Your task to perform on an android device: toggle translation in the chrome app Image 0: 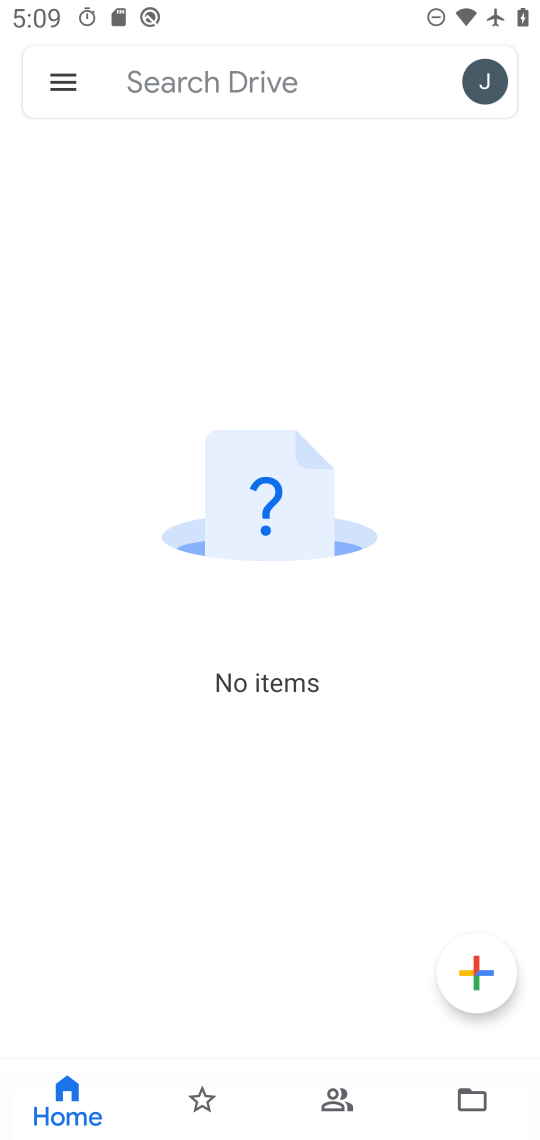
Step 0: press home button
Your task to perform on an android device: toggle translation in the chrome app Image 1: 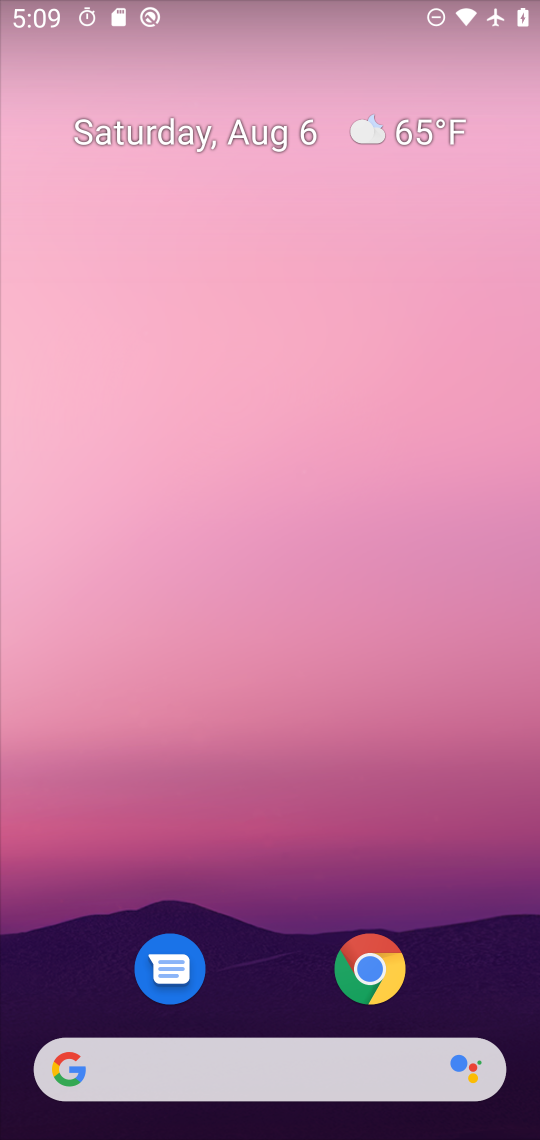
Step 1: drag from (244, 855) to (242, 324)
Your task to perform on an android device: toggle translation in the chrome app Image 2: 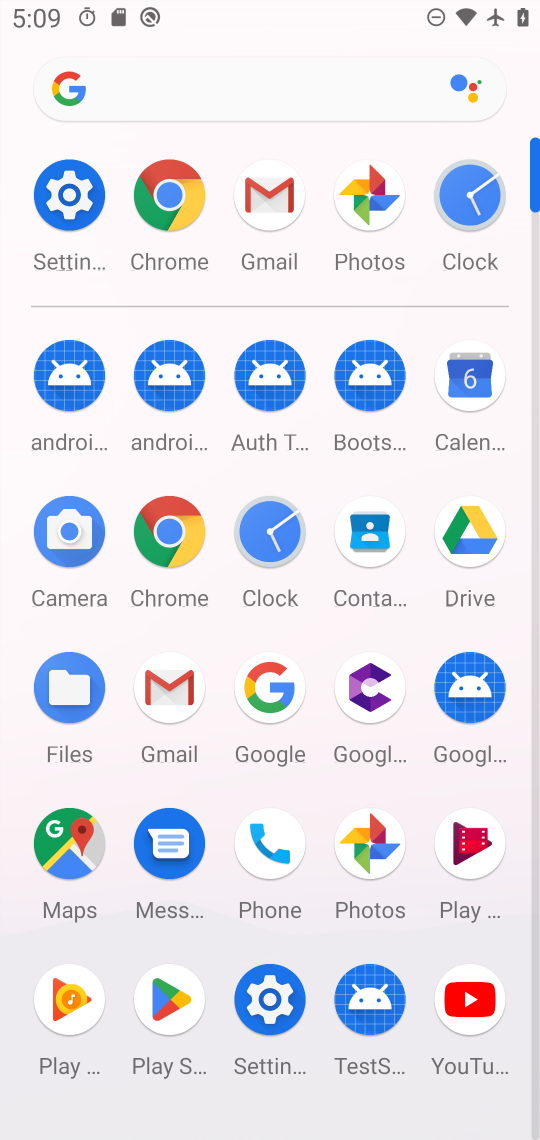
Step 2: click (165, 195)
Your task to perform on an android device: toggle translation in the chrome app Image 3: 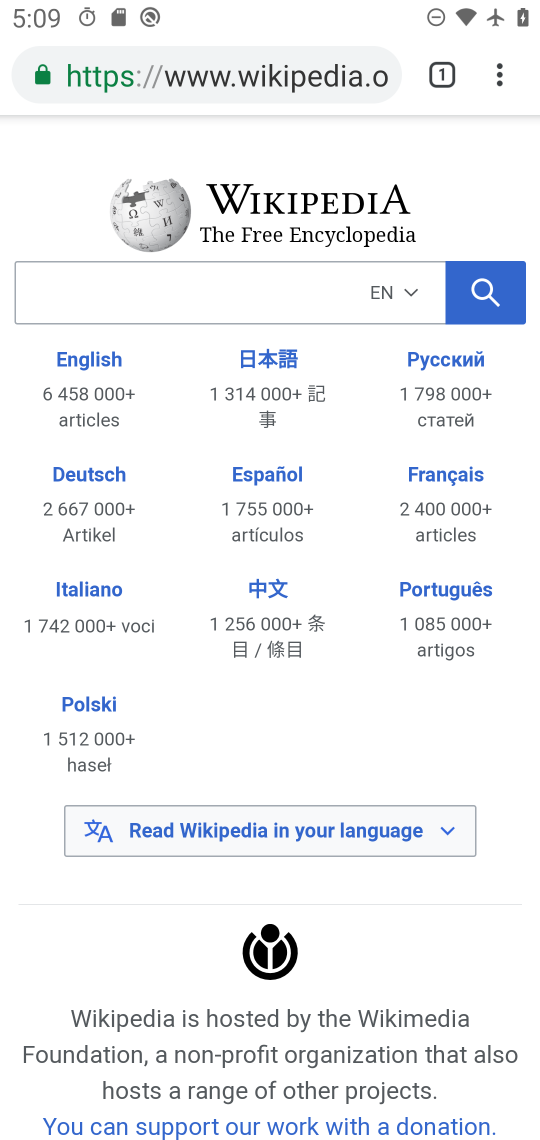
Step 3: drag from (489, 80) to (272, 993)
Your task to perform on an android device: toggle translation in the chrome app Image 4: 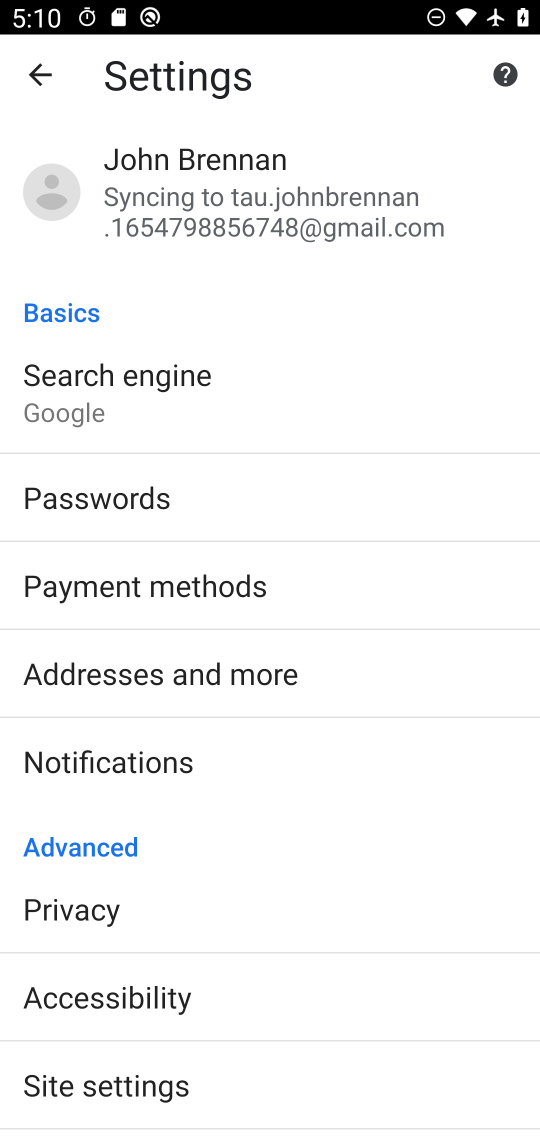
Step 4: drag from (340, 1078) to (323, 529)
Your task to perform on an android device: toggle translation in the chrome app Image 5: 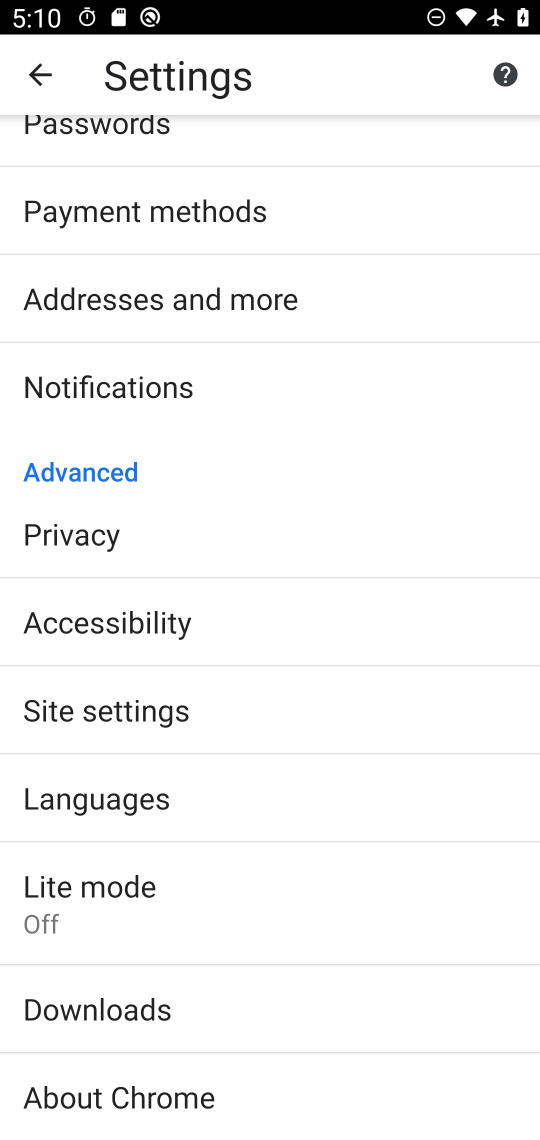
Step 5: click (86, 806)
Your task to perform on an android device: toggle translation in the chrome app Image 6: 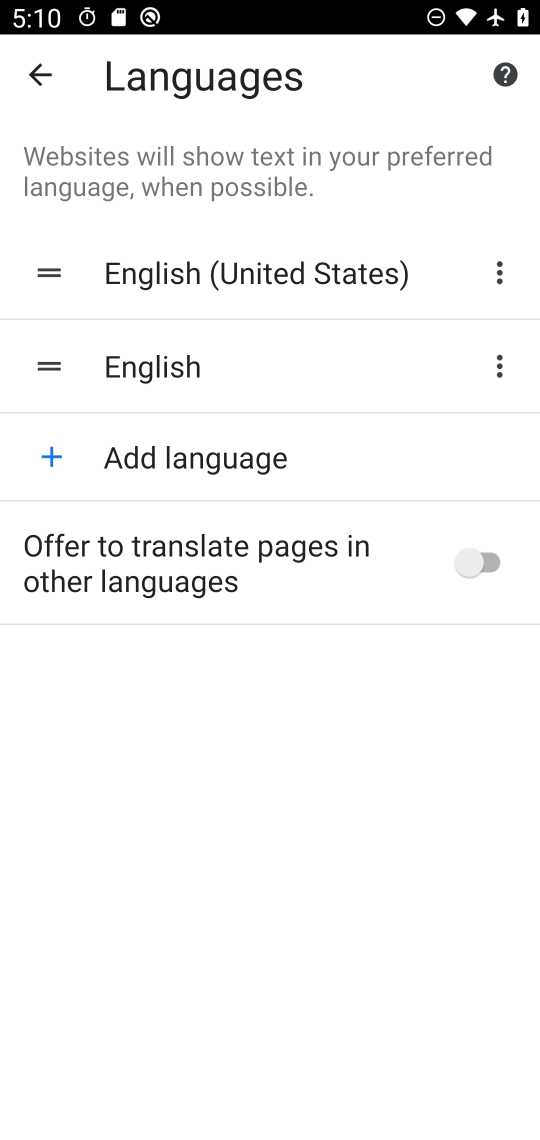
Step 6: click (473, 568)
Your task to perform on an android device: toggle translation in the chrome app Image 7: 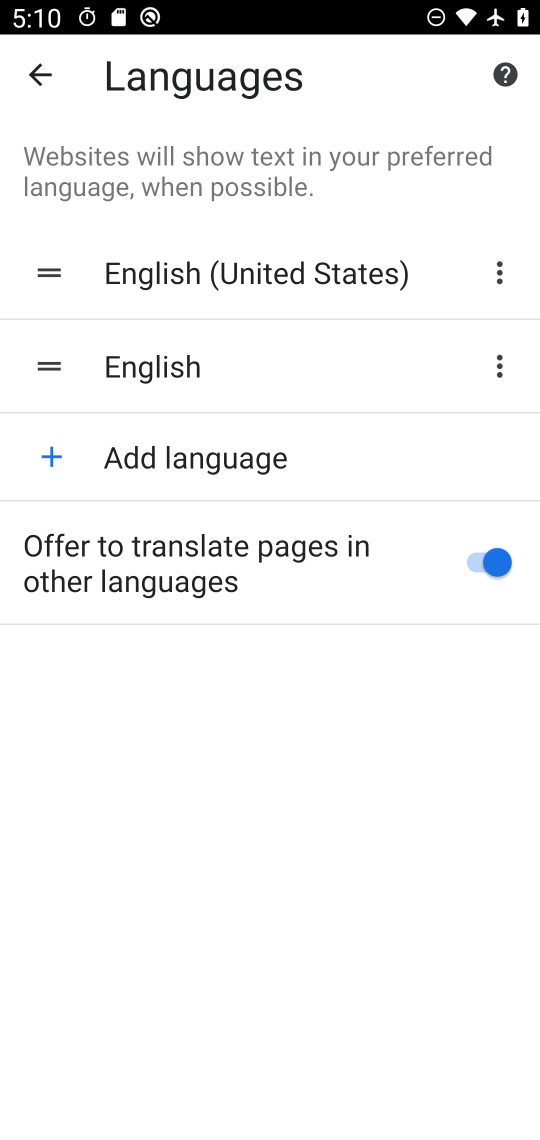
Step 7: task complete